Your task to perform on an android device: empty trash in google photos Image 0: 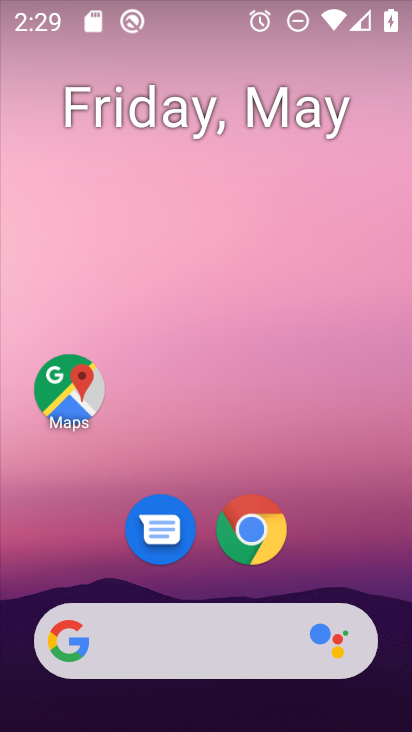
Step 0: drag from (392, 679) to (369, 336)
Your task to perform on an android device: empty trash in google photos Image 1: 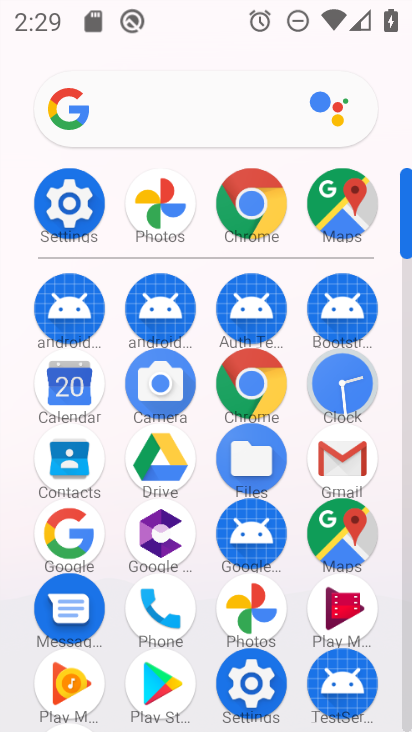
Step 1: click (237, 594)
Your task to perform on an android device: empty trash in google photos Image 2: 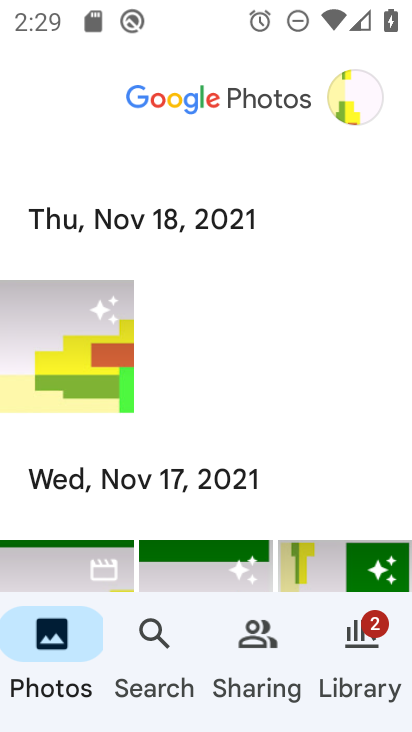
Step 2: task complete